Your task to perform on an android device: Search for Italian restaurants on Maps Image 0: 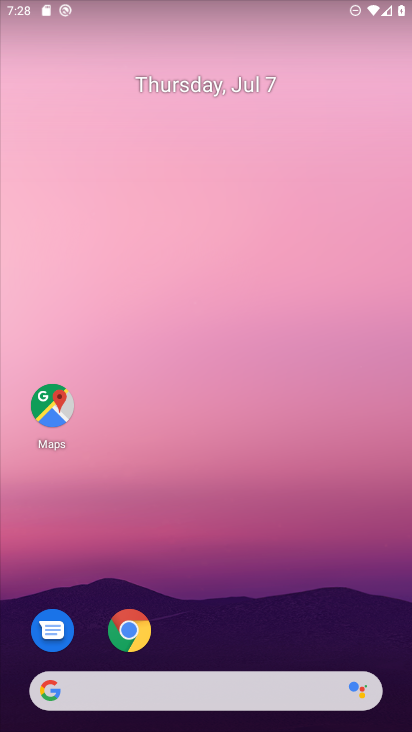
Step 0: click (47, 410)
Your task to perform on an android device: Search for Italian restaurants on Maps Image 1: 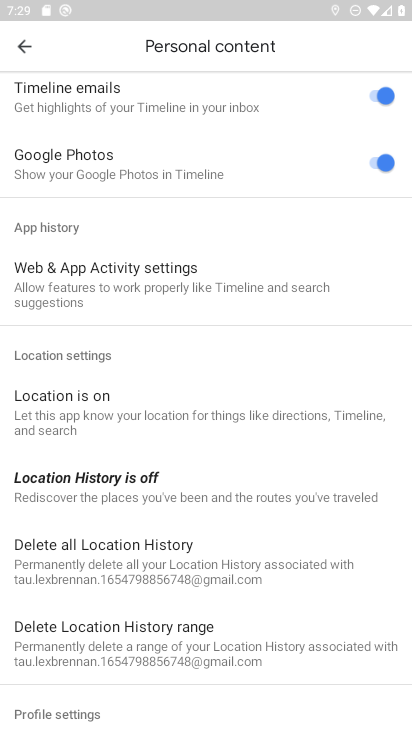
Step 1: click (21, 48)
Your task to perform on an android device: Search for Italian restaurants on Maps Image 2: 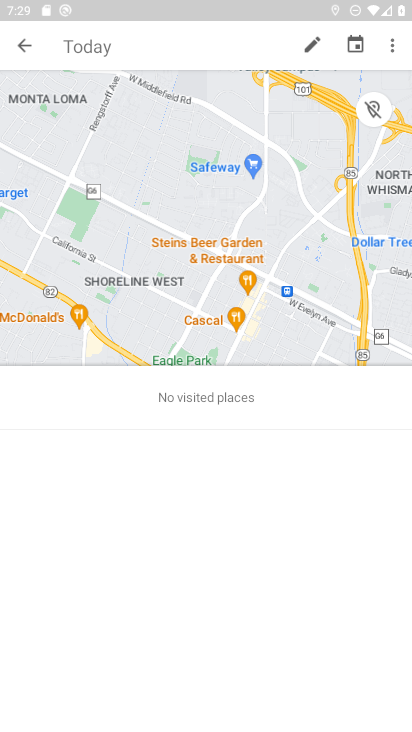
Step 2: click (21, 48)
Your task to perform on an android device: Search for Italian restaurants on Maps Image 3: 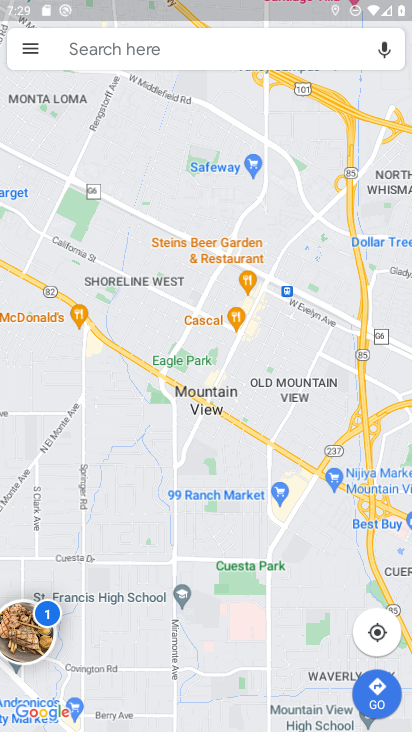
Step 3: click (176, 53)
Your task to perform on an android device: Search for Italian restaurants on Maps Image 4: 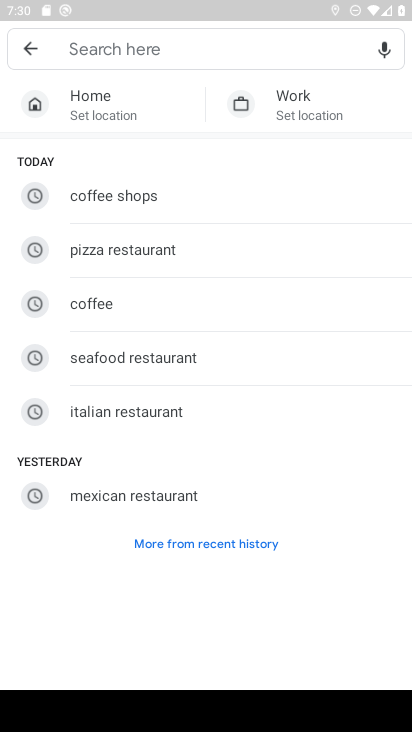
Step 4: type "italian restaurants"
Your task to perform on an android device: Search for Italian restaurants on Maps Image 5: 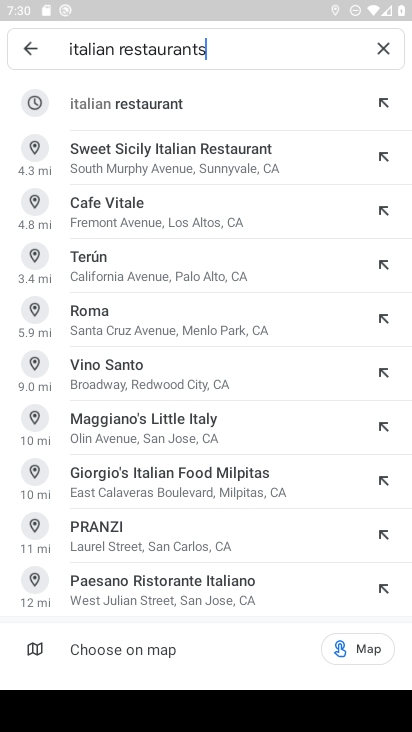
Step 5: click (163, 101)
Your task to perform on an android device: Search for Italian restaurants on Maps Image 6: 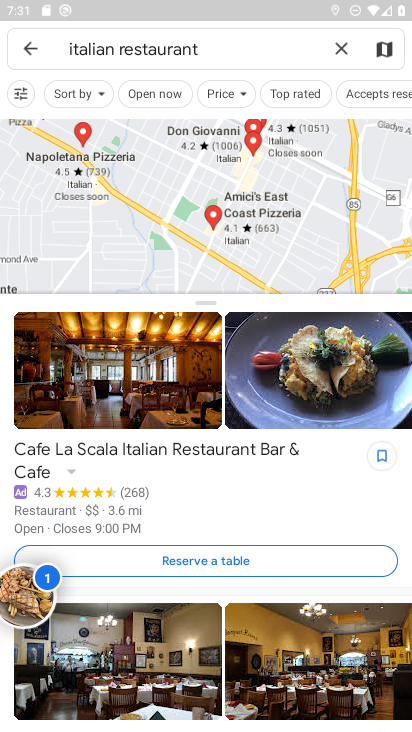
Step 6: task complete